Your task to perform on an android device: all mails in gmail Image 0: 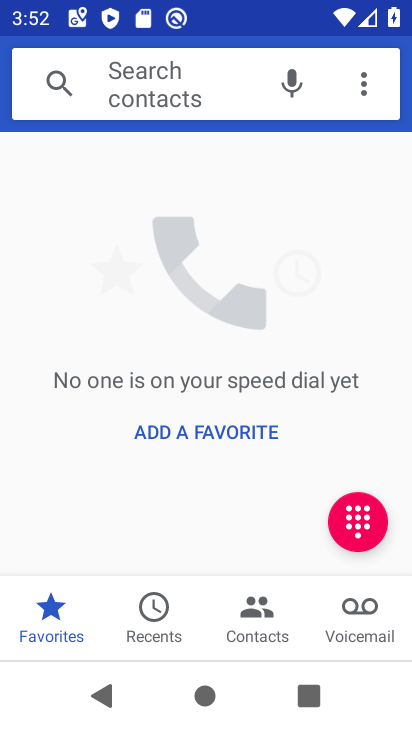
Step 0: press back button
Your task to perform on an android device: all mails in gmail Image 1: 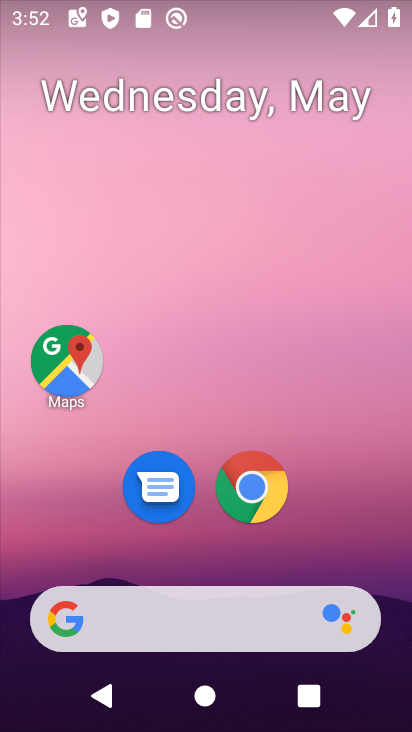
Step 1: drag from (352, 531) to (243, 7)
Your task to perform on an android device: all mails in gmail Image 2: 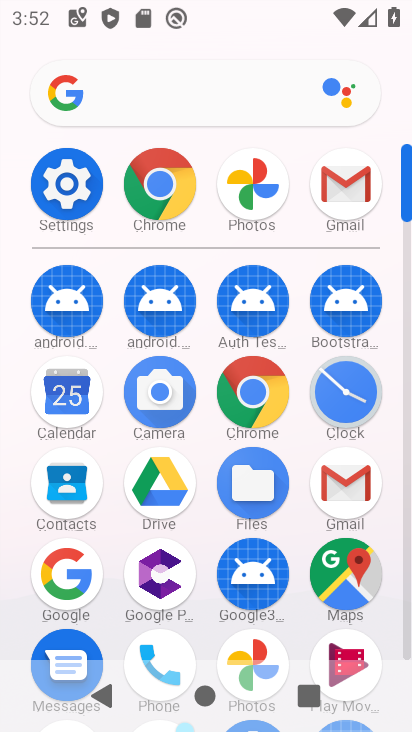
Step 2: drag from (0, 563) to (9, 274)
Your task to perform on an android device: all mails in gmail Image 3: 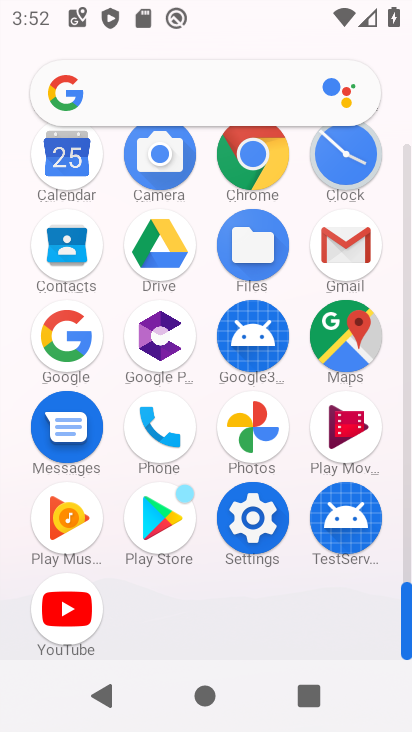
Step 3: click (344, 242)
Your task to perform on an android device: all mails in gmail Image 4: 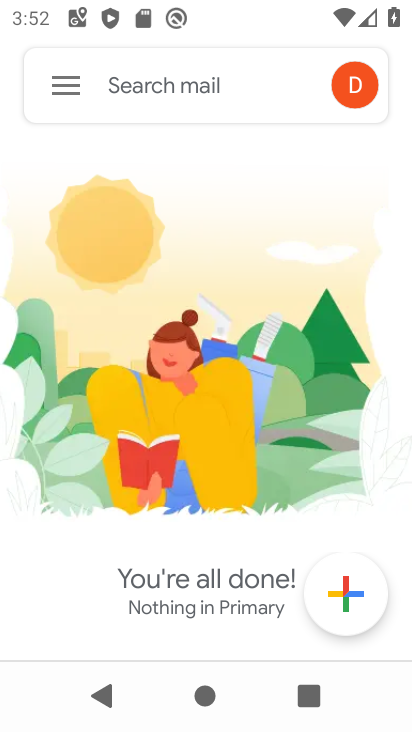
Step 4: click (58, 83)
Your task to perform on an android device: all mails in gmail Image 5: 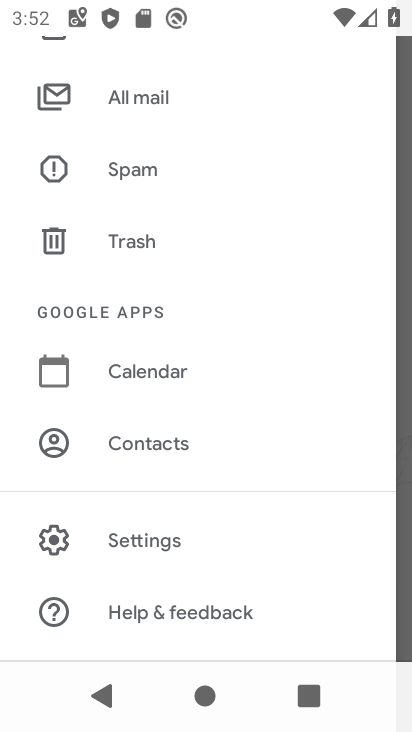
Step 5: click (154, 94)
Your task to perform on an android device: all mails in gmail Image 6: 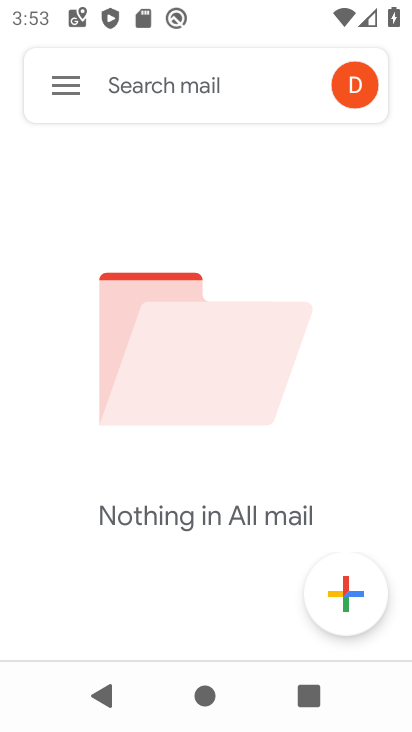
Step 6: task complete